Your task to perform on an android device: set the timer Image 0: 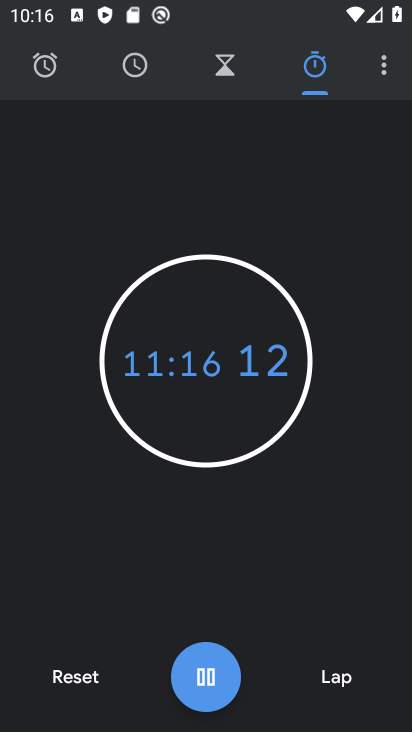
Step 0: press home button
Your task to perform on an android device: set the timer Image 1: 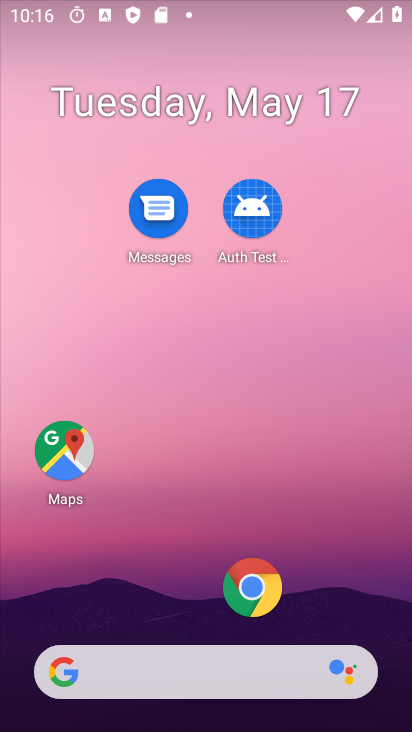
Step 1: drag from (288, 554) to (144, 140)
Your task to perform on an android device: set the timer Image 2: 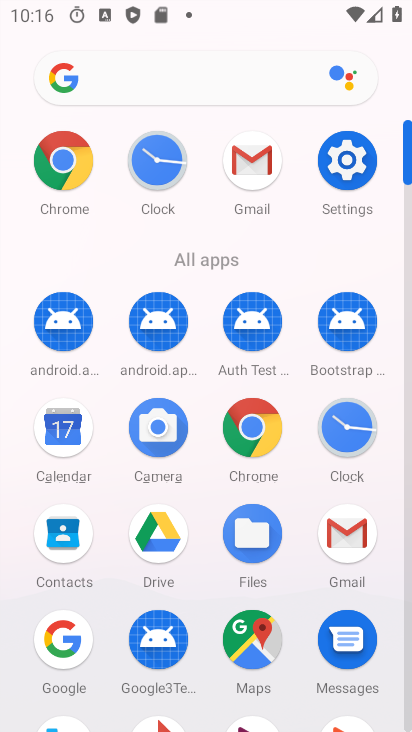
Step 2: click (349, 444)
Your task to perform on an android device: set the timer Image 3: 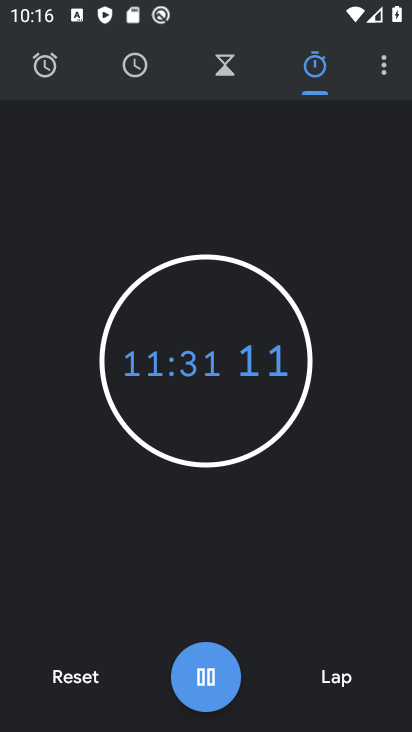
Step 3: click (223, 697)
Your task to perform on an android device: set the timer Image 4: 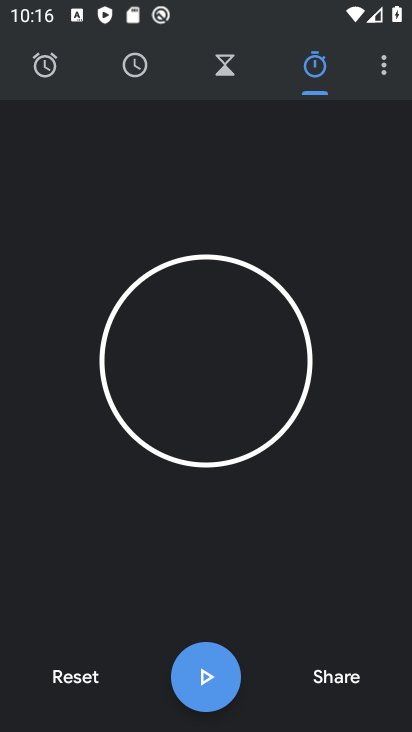
Step 4: click (63, 660)
Your task to perform on an android device: set the timer Image 5: 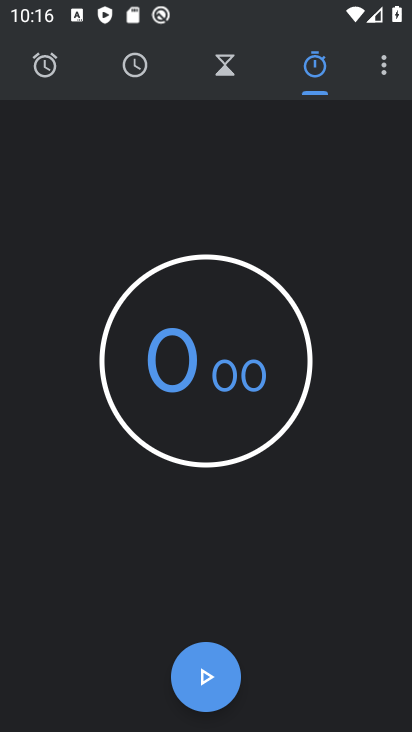
Step 5: task complete